Your task to perform on an android device: Check the news Image 0: 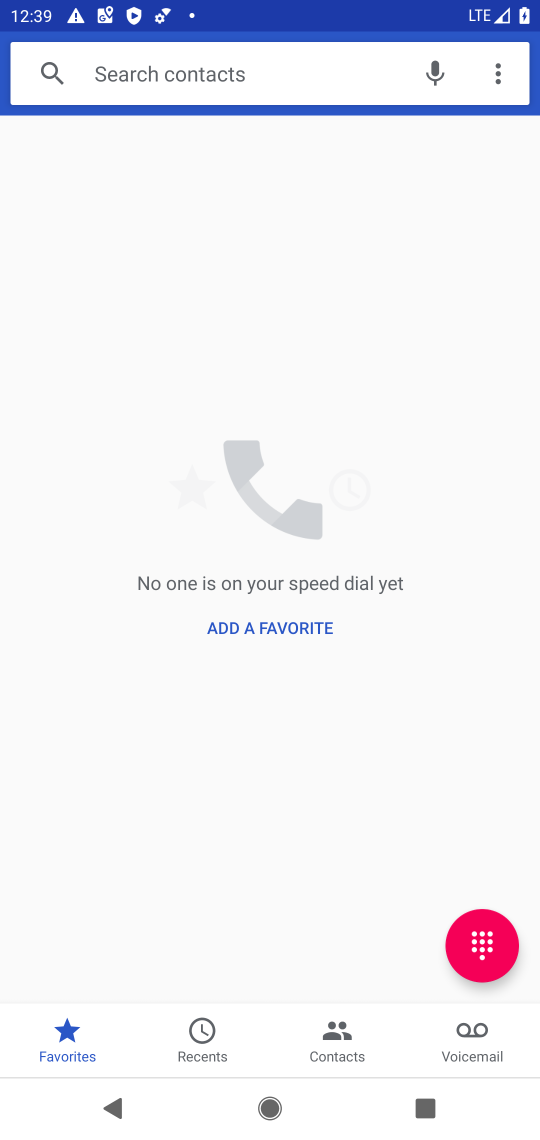
Step 0: press home button
Your task to perform on an android device: Check the news Image 1: 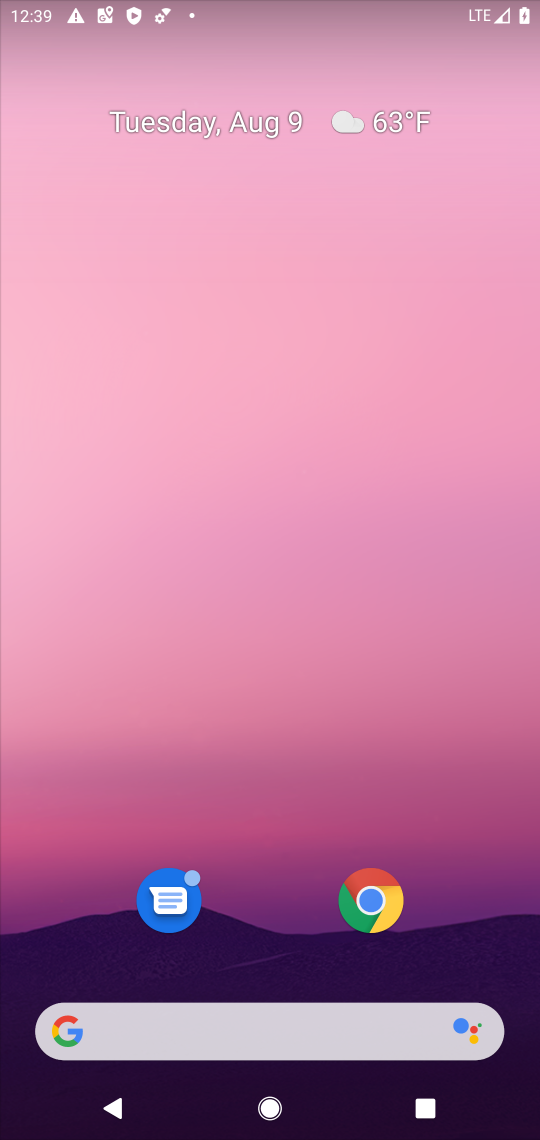
Step 1: task complete